Your task to perform on an android device: turn off wifi Image 0: 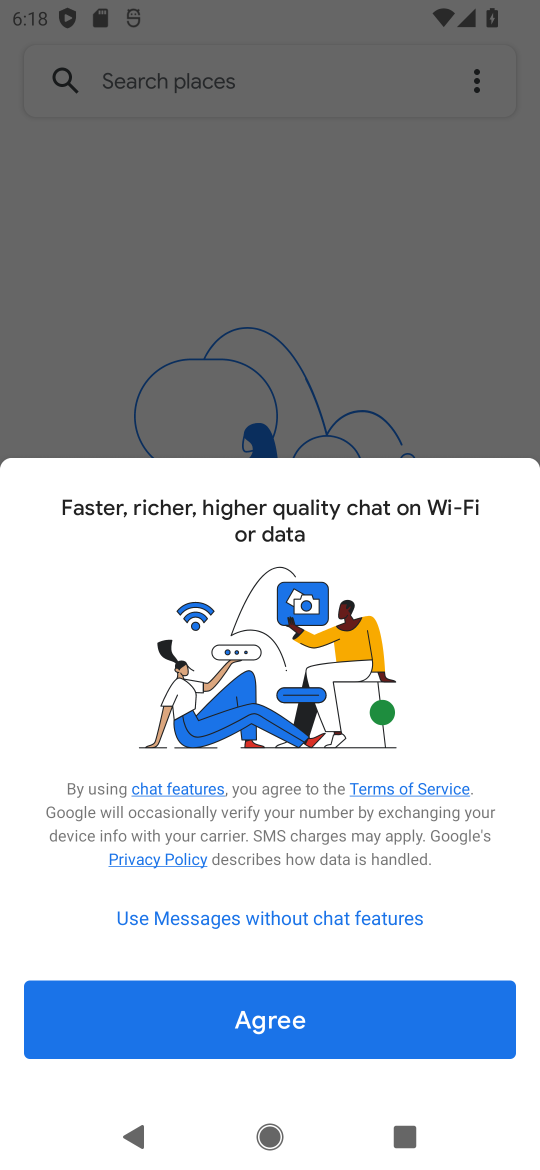
Step 0: press home button
Your task to perform on an android device: turn off wifi Image 1: 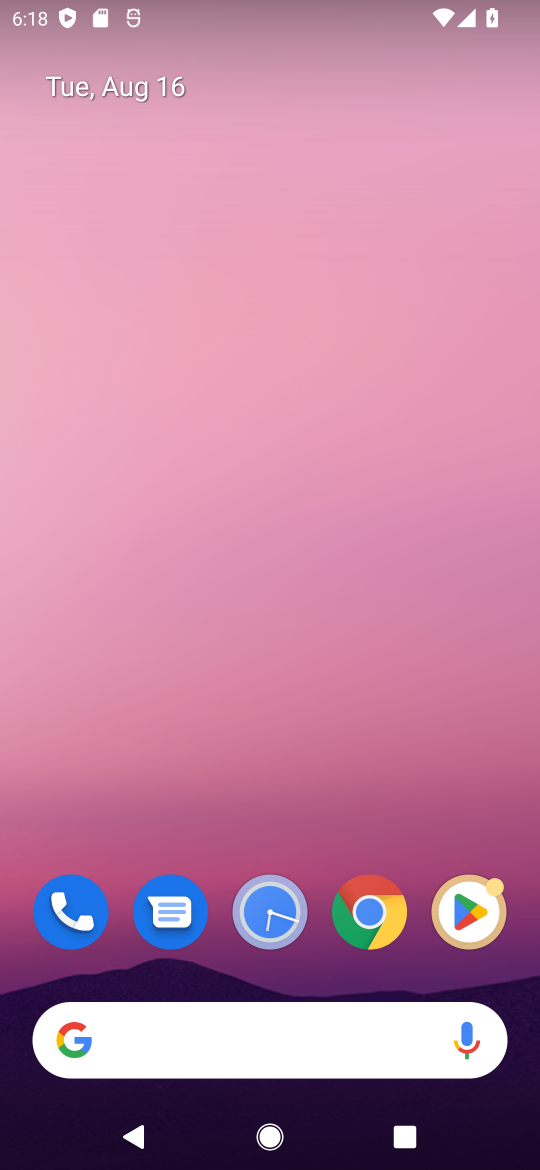
Step 1: drag from (410, 956) to (361, 208)
Your task to perform on an android device: turn off wifi Image 2: 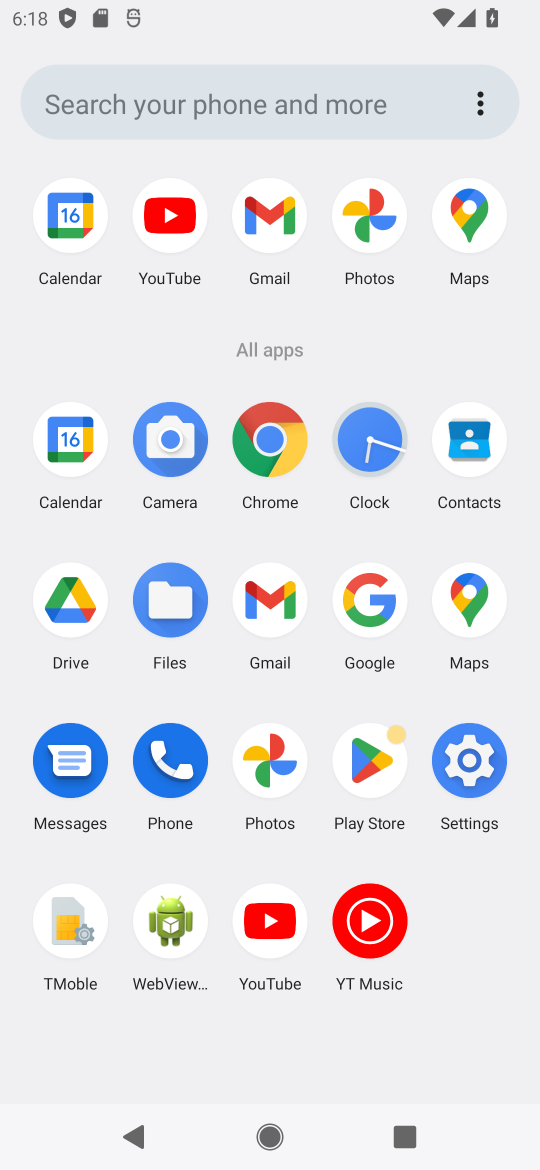
Step 2: click (471, 759)
Your task to perform on an android device: turn off wifi Image 3: 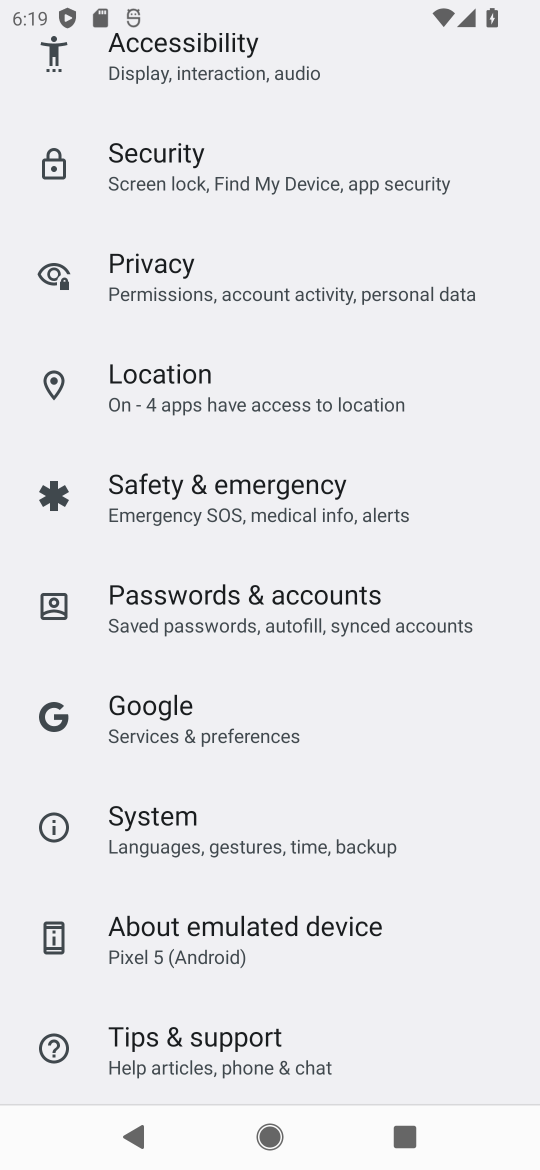
Step 3: drag from (477, 233) to (502, 689)
Your task to perform on an android device: turn off wifi Image 4: 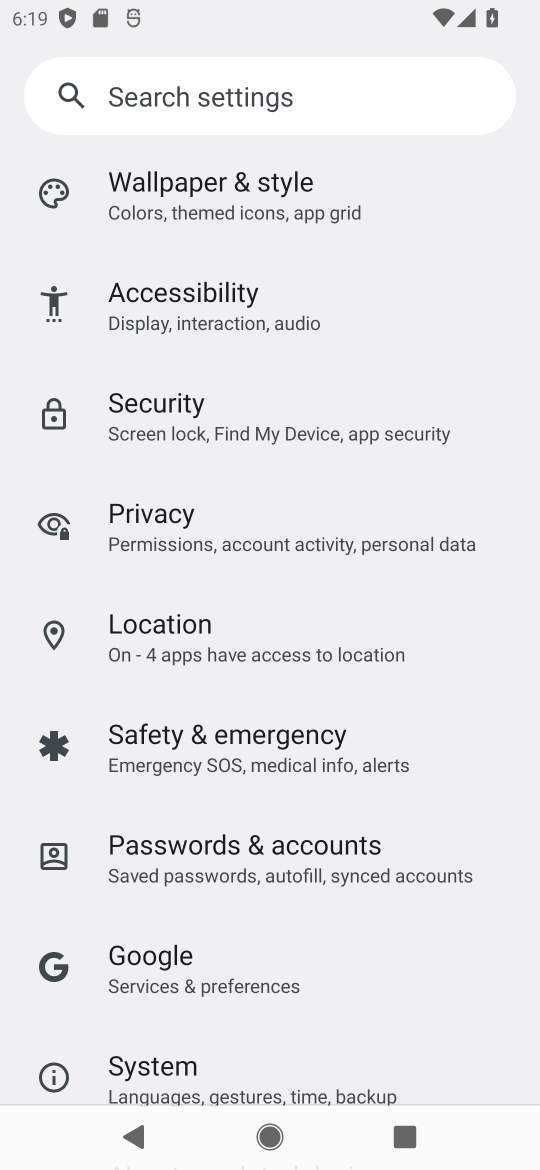
Step 4: drag from (414, 286) to (450, 709)
Your task to perform on an android device: turn off wifi Image 5: 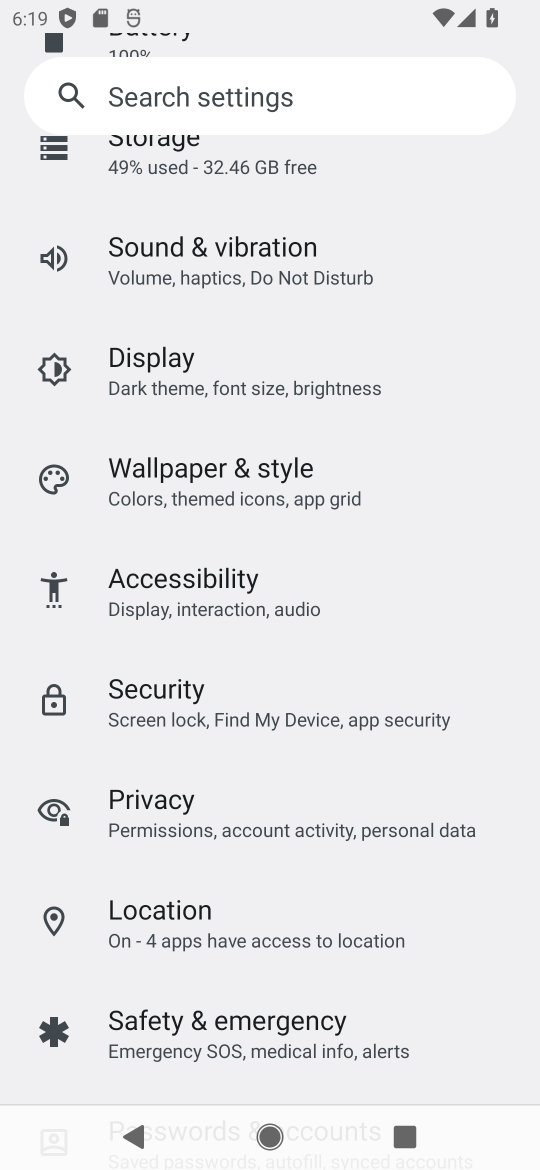
Step 5: drag from (444, 291) to (481, 703)
Your task to perform on an android device: turn off wifi Image 6: 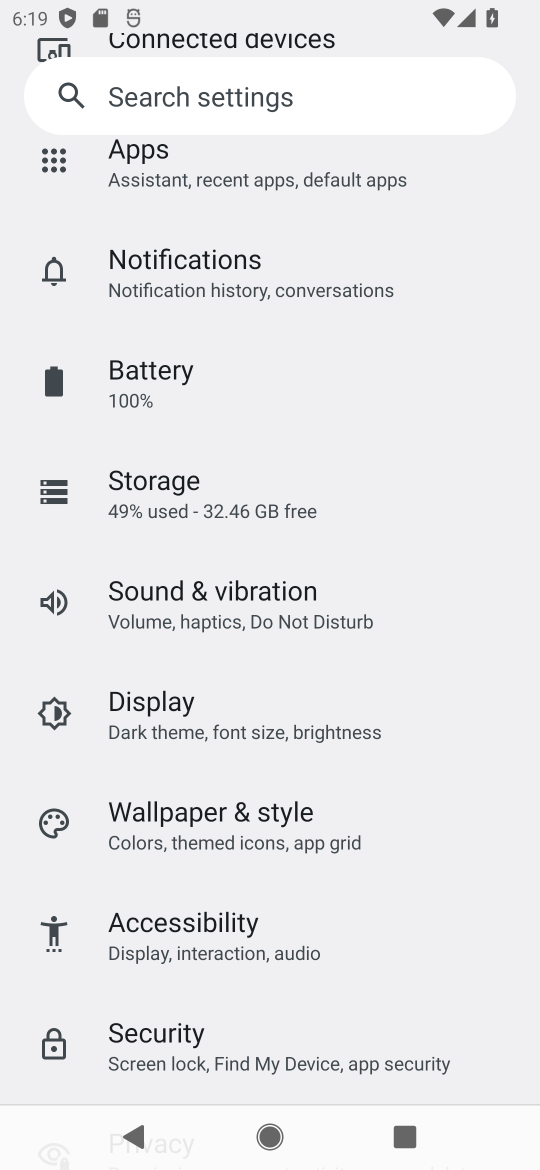
Step 6: drag from (435, 315) to (453, 699)
Your task to perform on an android device: turn off wifi Image 7: 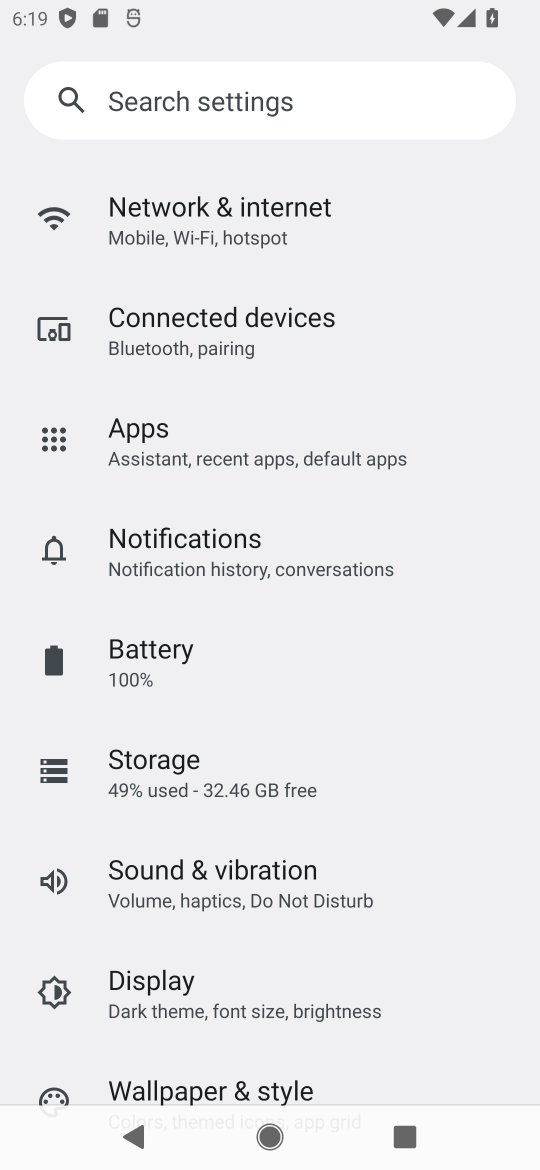
Step 7: click (156, 212)
Your task to perform on an android device: turn off wifi Image 8: 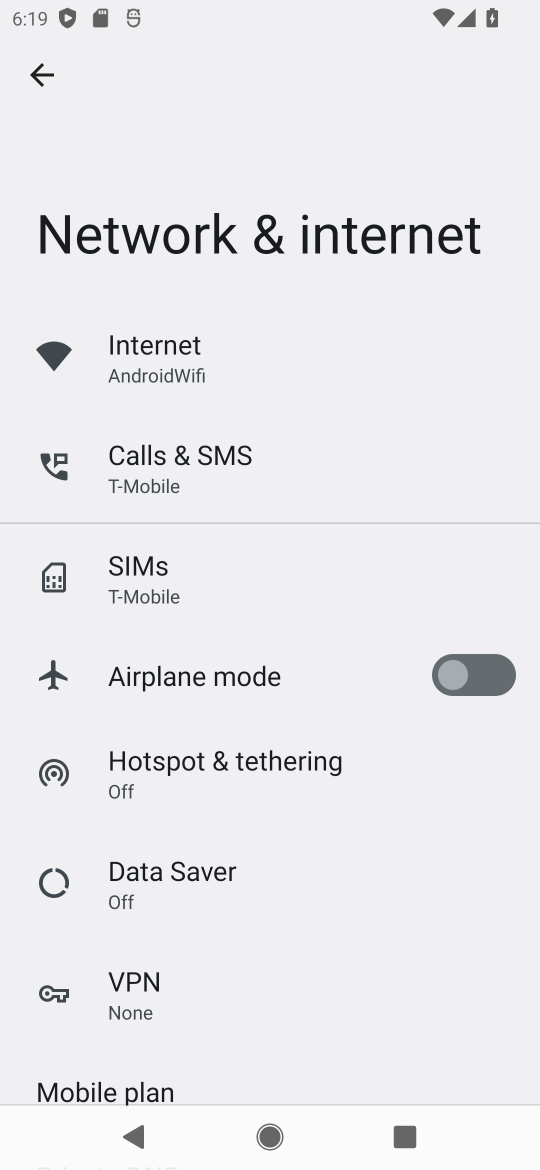
Step 8: click (164, 360)
Your task to perform on an android device: turn off wifi Image 9: 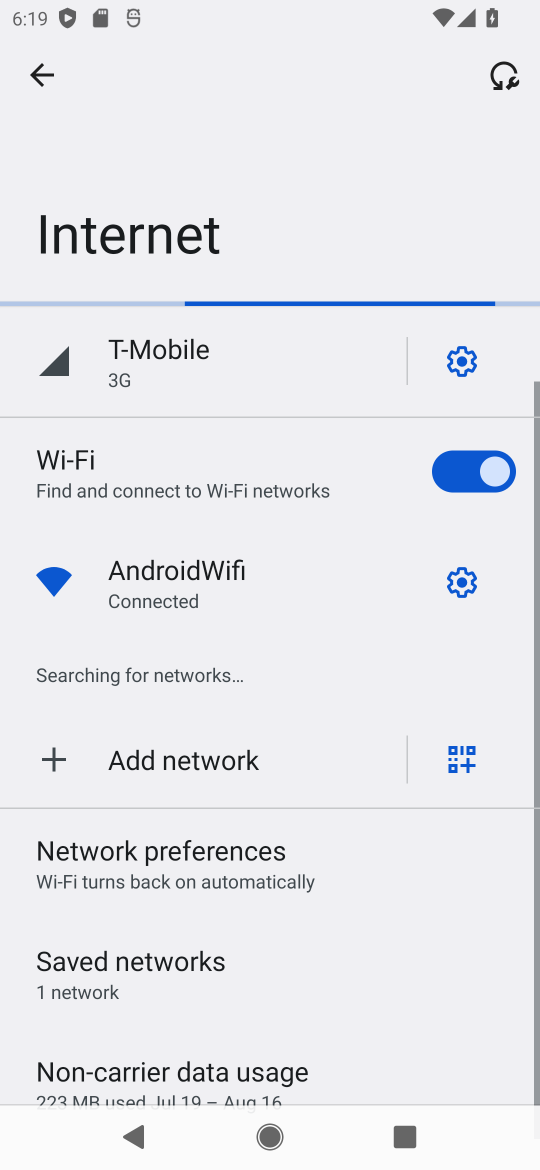
Step 9: click (454, 477)
Your task to perform on an android device: turn off wifi Image 10: 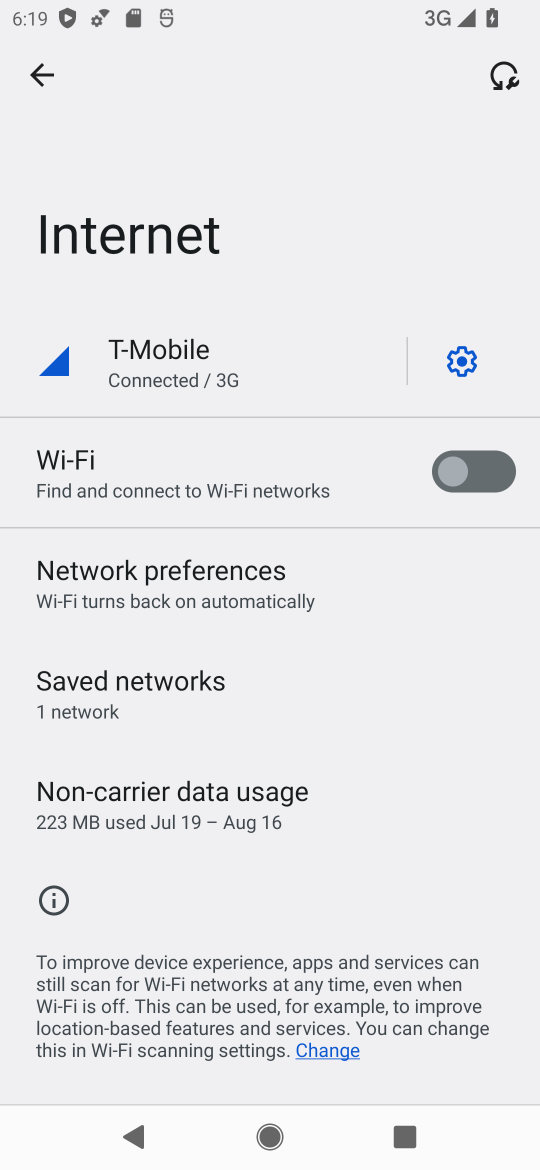
Step 10: task complete